Your task to perform on an android device: snooze an email in the gmail app Image 0: 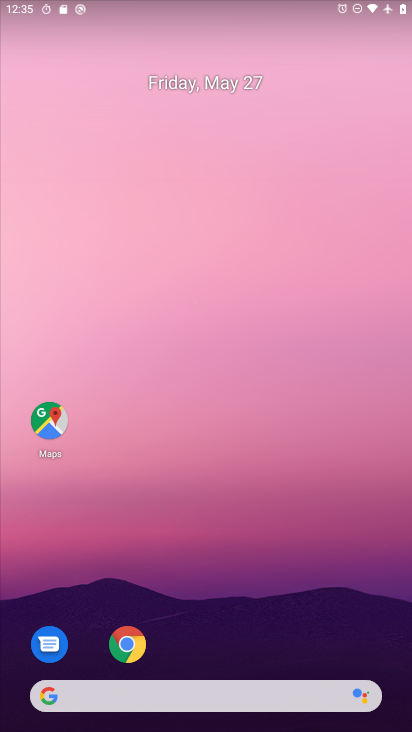
Step 0: drag from (220, 617) to (221, 227)
Your task to perform on an android device: snooze an email in the gmail app Image 1: 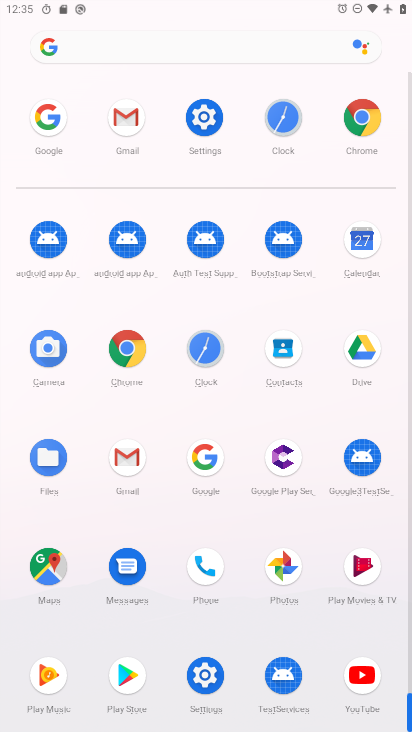
Step 1: click (130, 121)
Your task to perform on an android device: snooze an email in the gmail app Image 2: 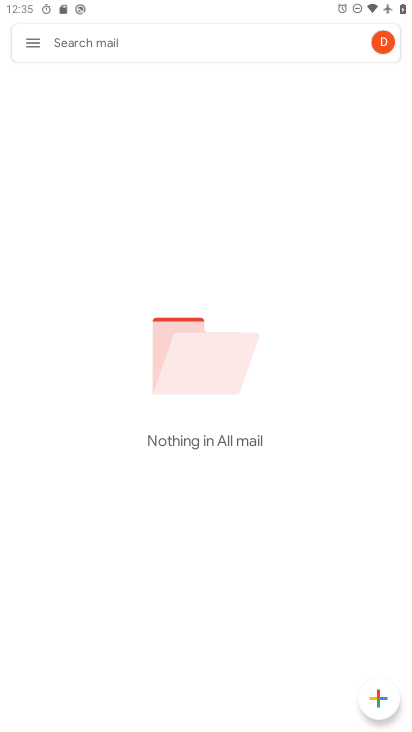
Step 2: click (35, 44)
Your task to perform on an android device: snooze an email in the gmail app Image 3: 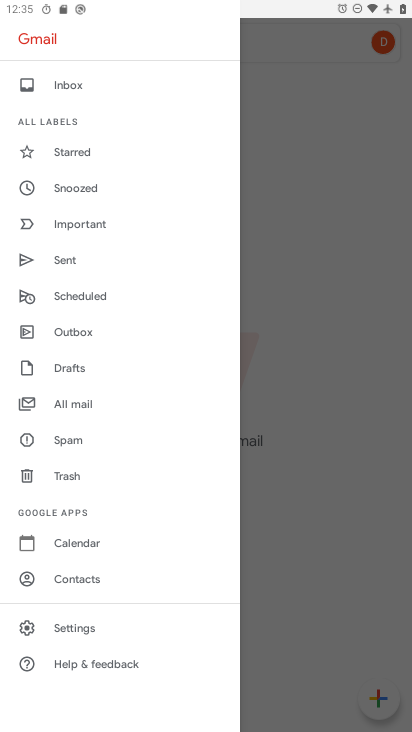
Step 3: click (108, 193)
Your task to perform on an android device: snooze an email in the gmail app Image 4: 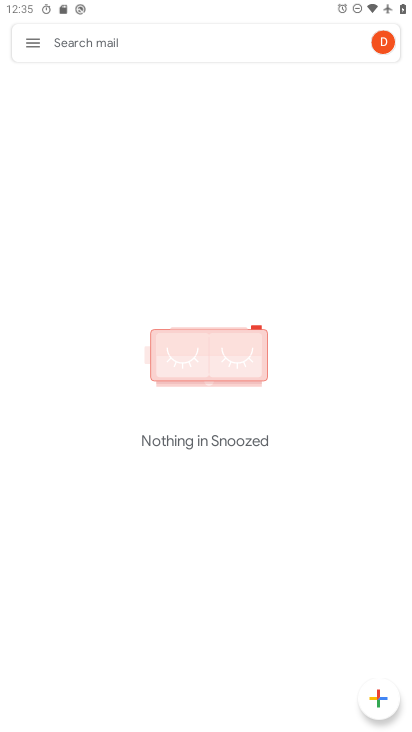
Step 4: click (33, 50)
Your task to perform on an android device: snooze an email in the gmail app Image 5: 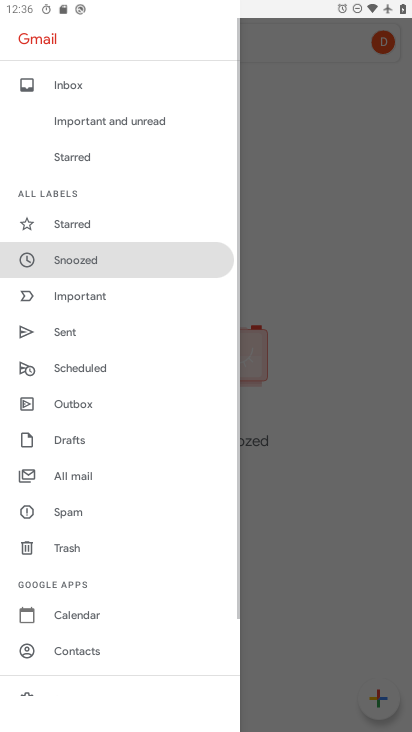
Step 5: click (93, 468)
Your task to perform on an android device: snooze an email in the gmail app Image 6: 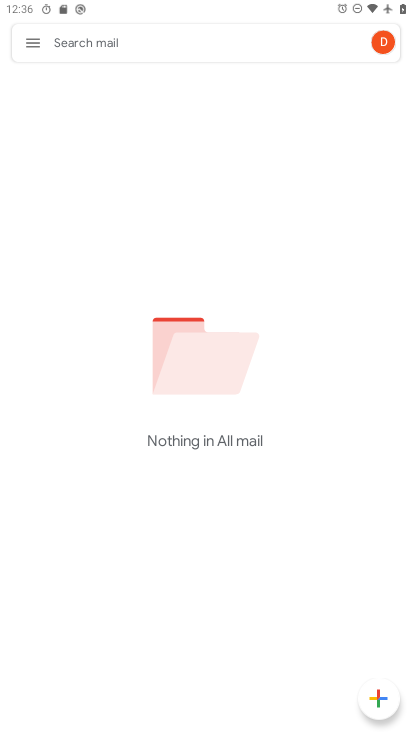
Step 6: task complete